Your task to perform on an android device: turn off data saver in the chrome app Image 0: 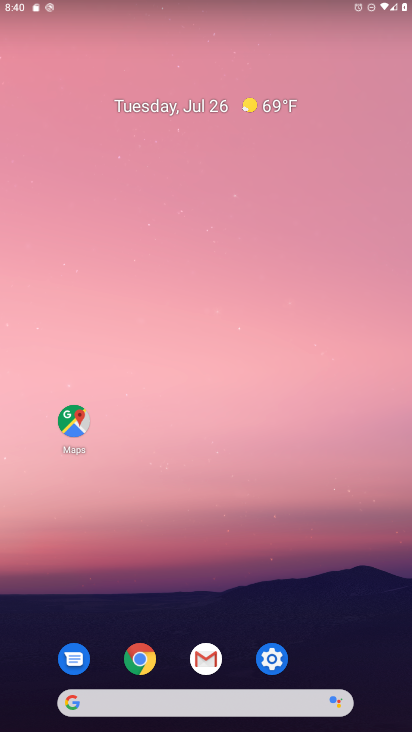
Step 0: drag from (208, 728) to (281, 125)
Your task to perform on an android device: turn off data saver in the chrome app Image 1: 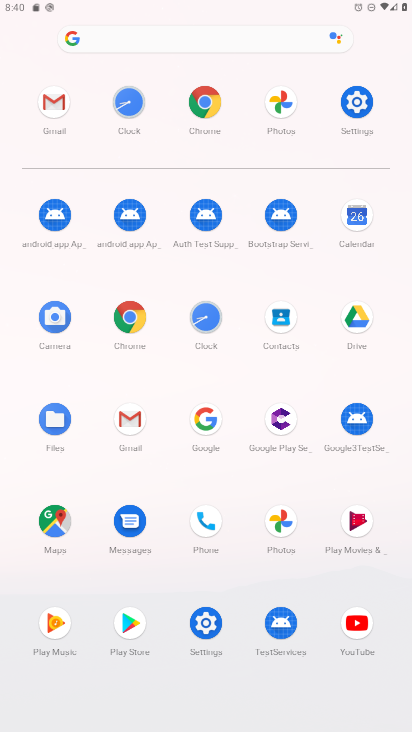
Step 1: click (207, 113)
Your task to perform on an android device: turn off data saver in the chrome app Image 2: 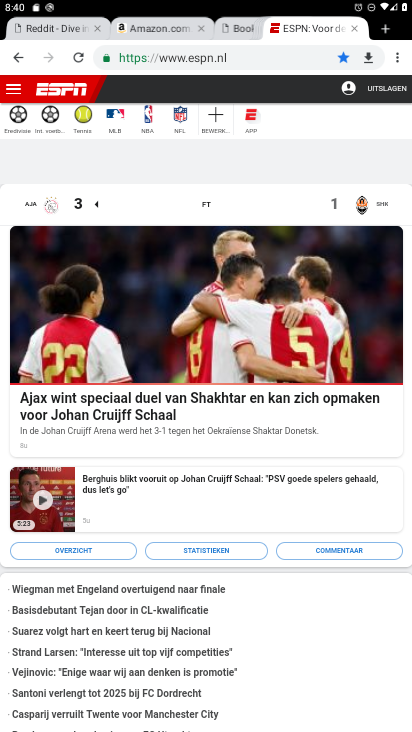
Step 2: click (402, 61)
Your task to perform on an android device: turn off data saver in the chrome app Image 3: 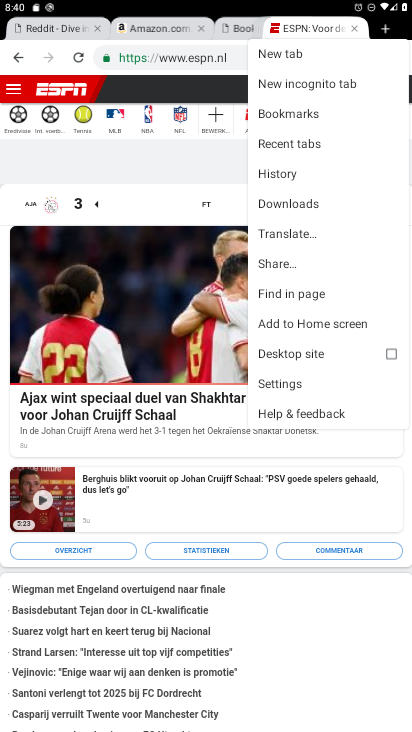
Step 3: click (283, 375)
Your task to perform on an android device: turn off data saver in the chrome app Image 4: 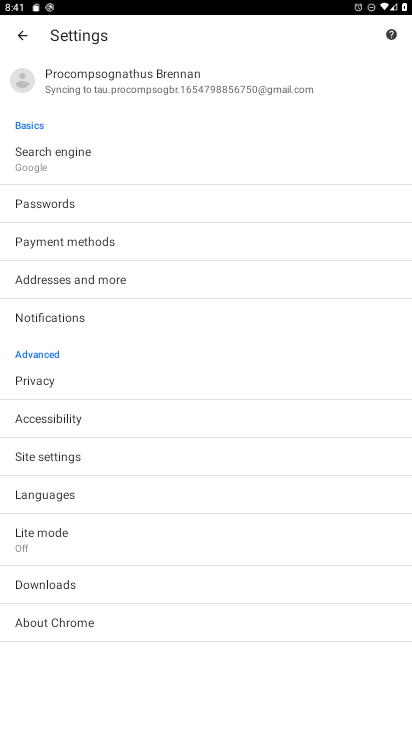
Step 4: click (38, 536)
Your task to perform on an android device: turn off data saver in the chrome app Image 5: 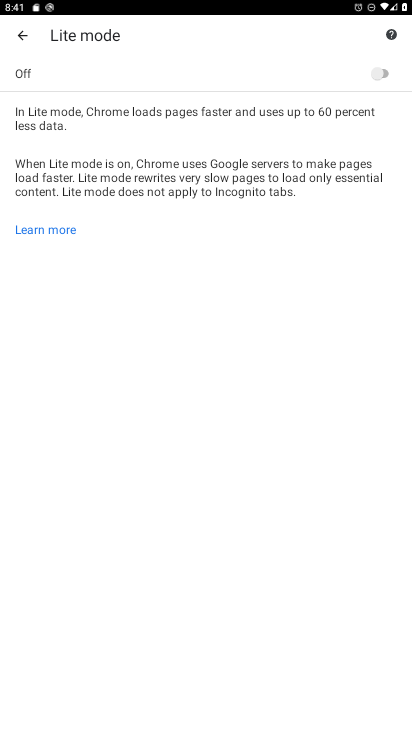
Step 5: click (377, 70)
Your task to perform on an android device: turn off data saver in the chrome app Image 6: 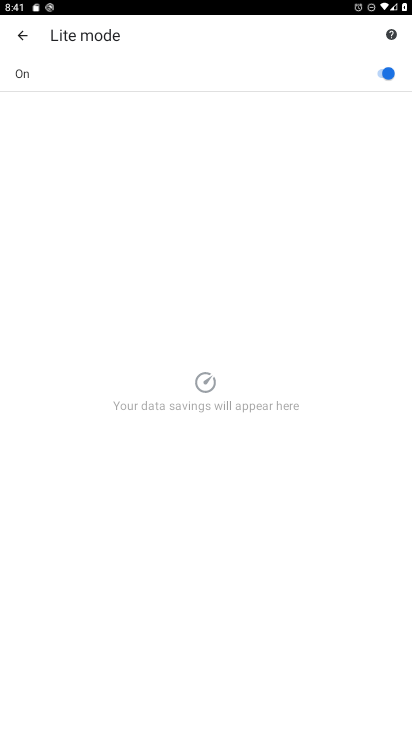
Step 6: click (377, 70)
Your task to perform on an android device: turn off data saver in the chrome app Image 7: 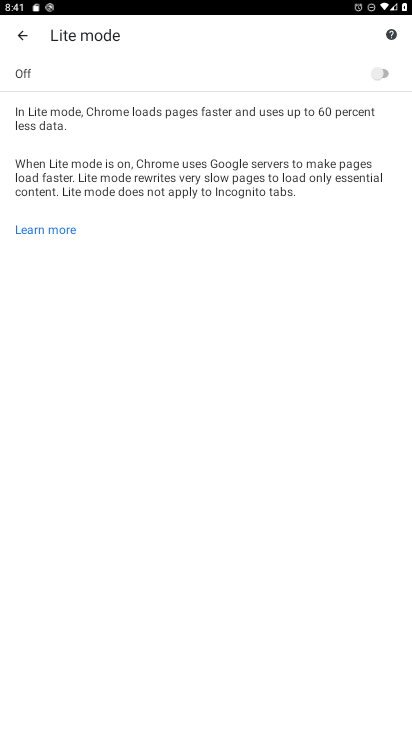
Step 7: task complete